Your task to perform on an android device: toggle airplane mode Image 0: 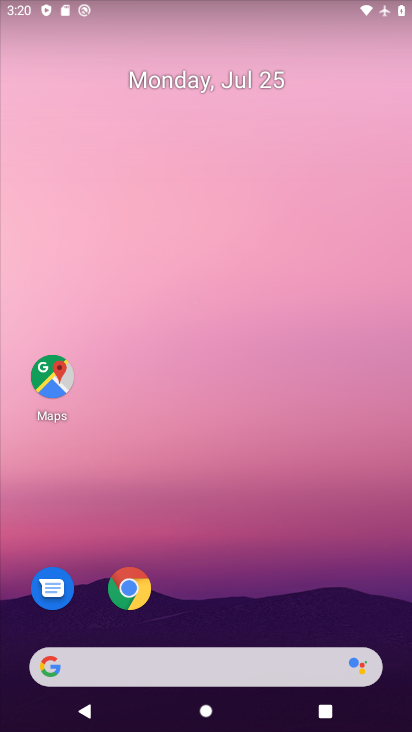
Step 0: drag from (230, 725) to (212, 33)
Your task to perform on an android device: toggle airplane mode Image 1: 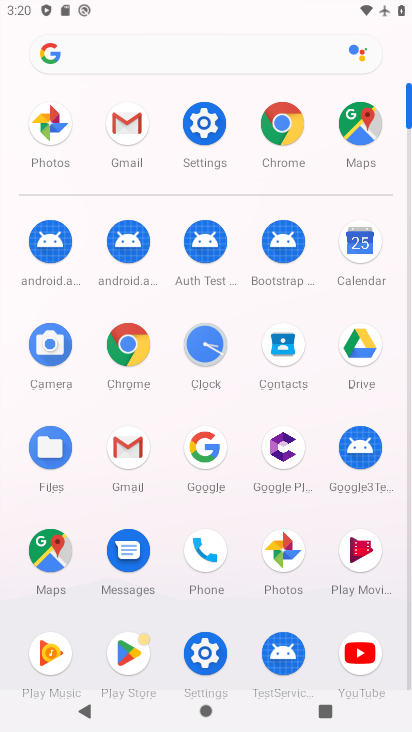
Step 1: click (207, 125)
Your task to perform on an android device: toggle airplane mode Image 2: 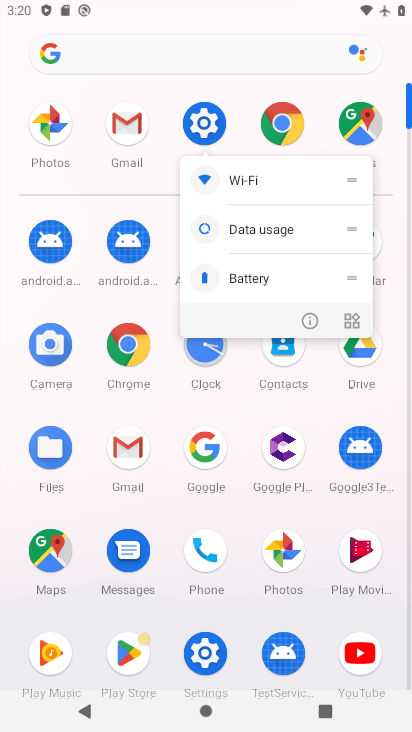
Step 2: click (212, 119)
Your task to perform on an android device: toggle airplane mode Image 3: 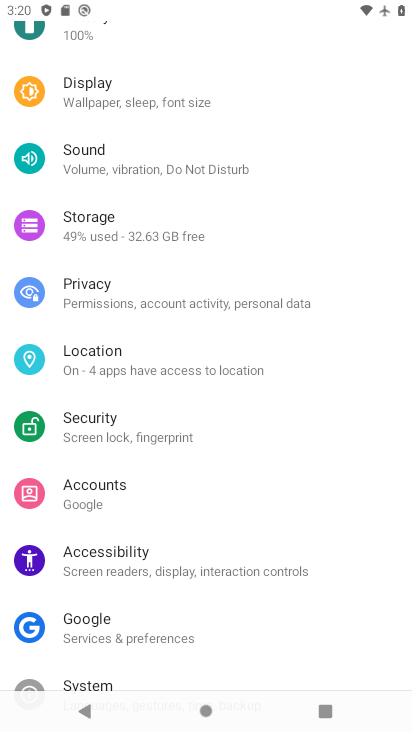
Step 3: drag from (205, 137) to (179, 617)
Your task to perform on an android device: toggle airplane mode Image 4: 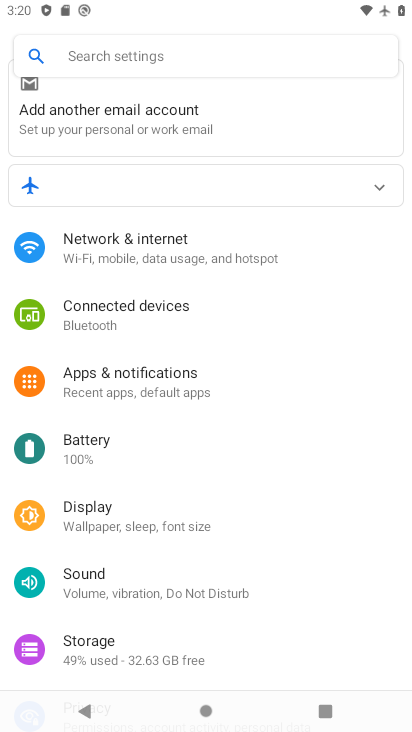
Step 4: click (132, 240)
Your task to perform on an android device: toggle airplane mode Image 5: 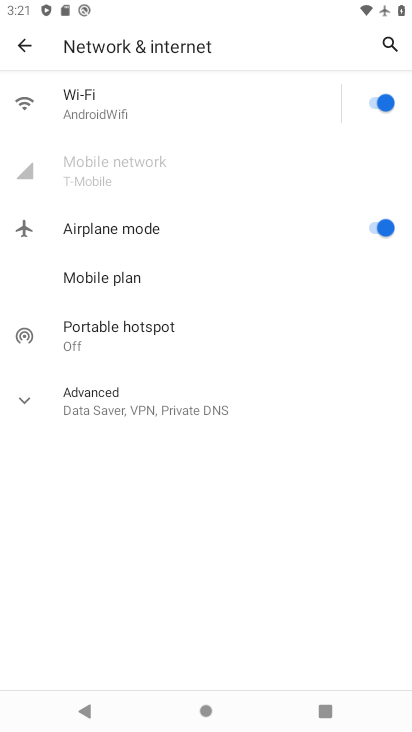
Step 5: click (379, 229)
Your task to perform on an android device: toggle airplane mode Image 6: 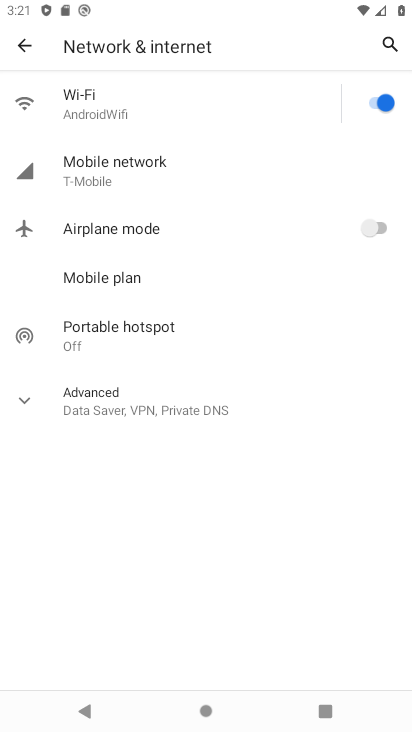
Step 6: task complete